Your task to perform on an android device: Show the shopping cart on costco. Add apple airpods pro to the cart on costco, then select checkout. Image 0: 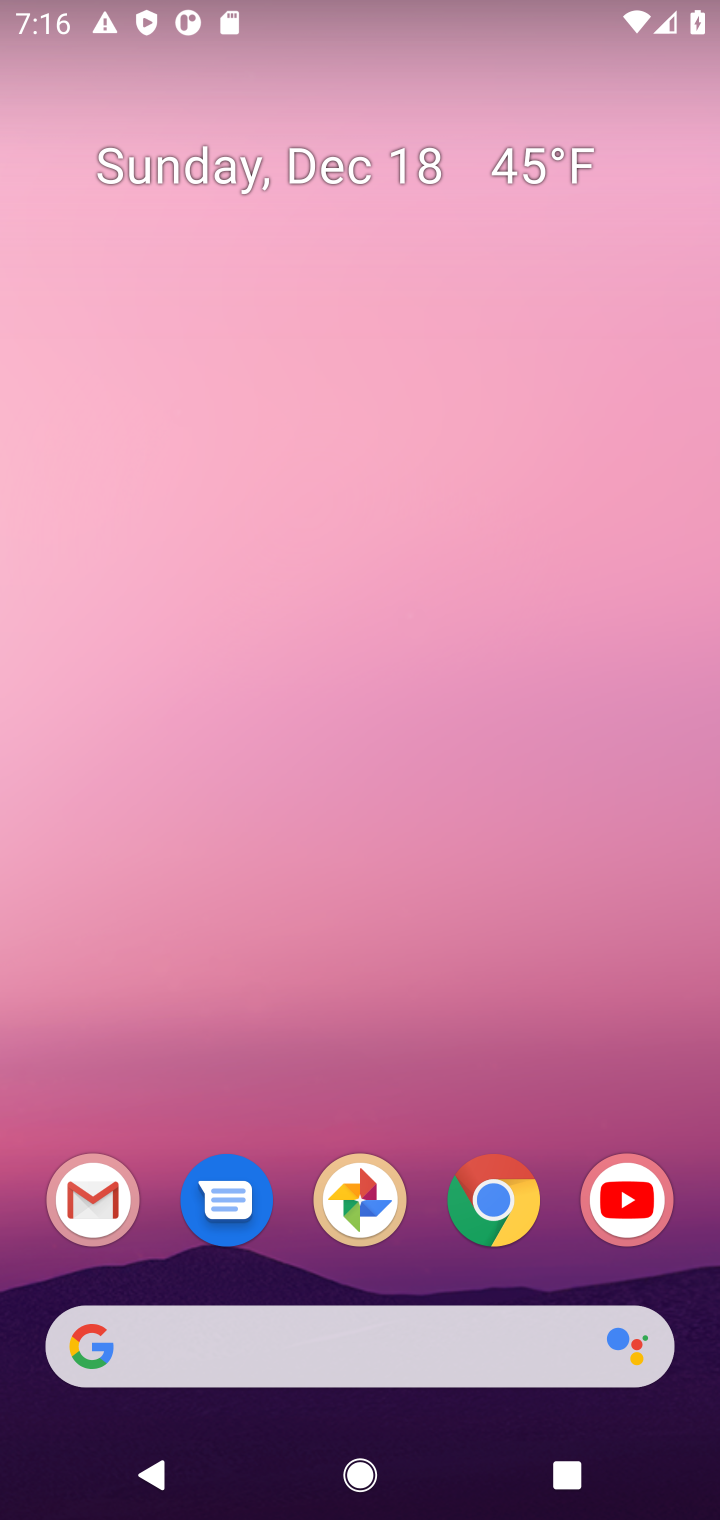
Step 0: click (495, 1183)
Your task to perform on an android device: Show the shopping cart on costco. Add apple airpods pro to the cart on costco, then select checkout. Image 1: 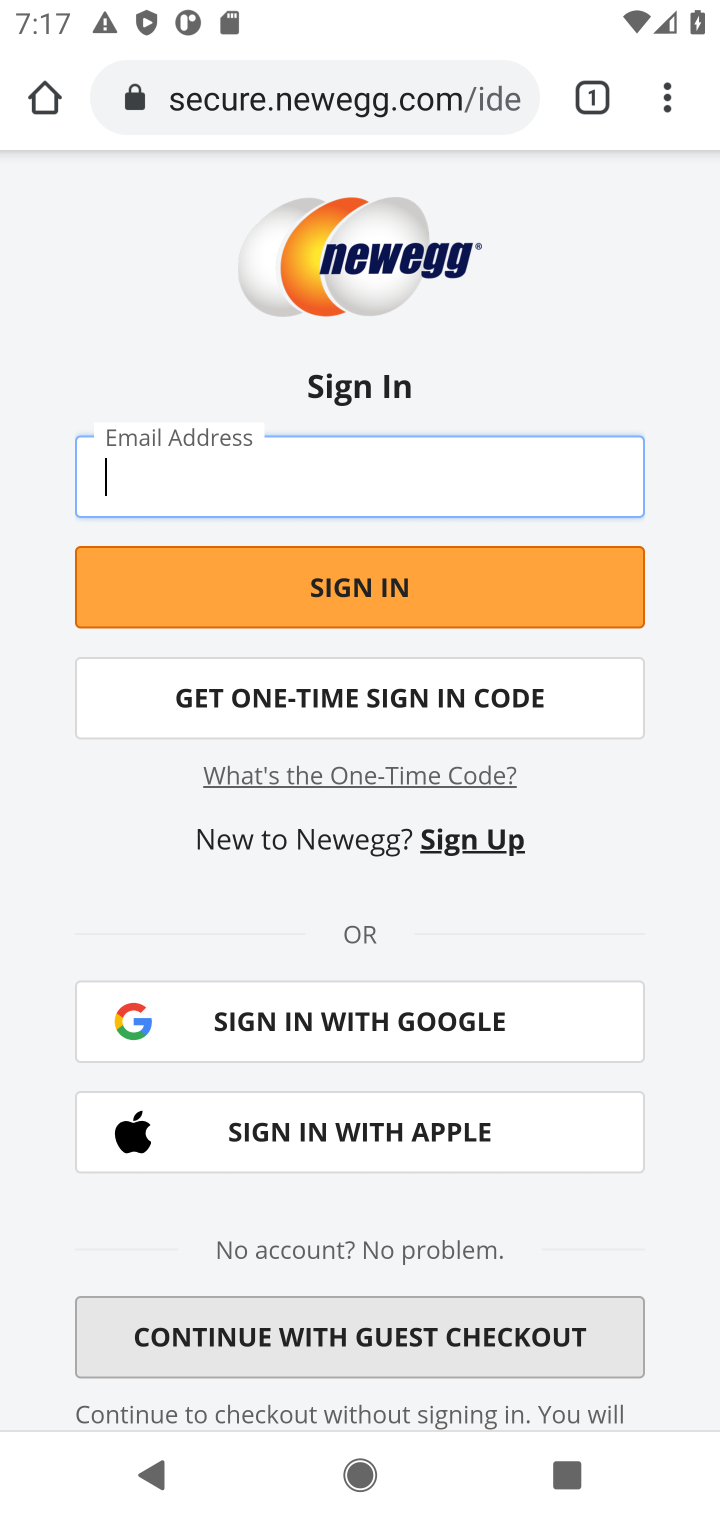
Step 1: click (310, 102)
Your task to perform on an android device: Show the shopping cart on costco. Add apple airpods pro to the cart on costco, then select checkout. Image 2: 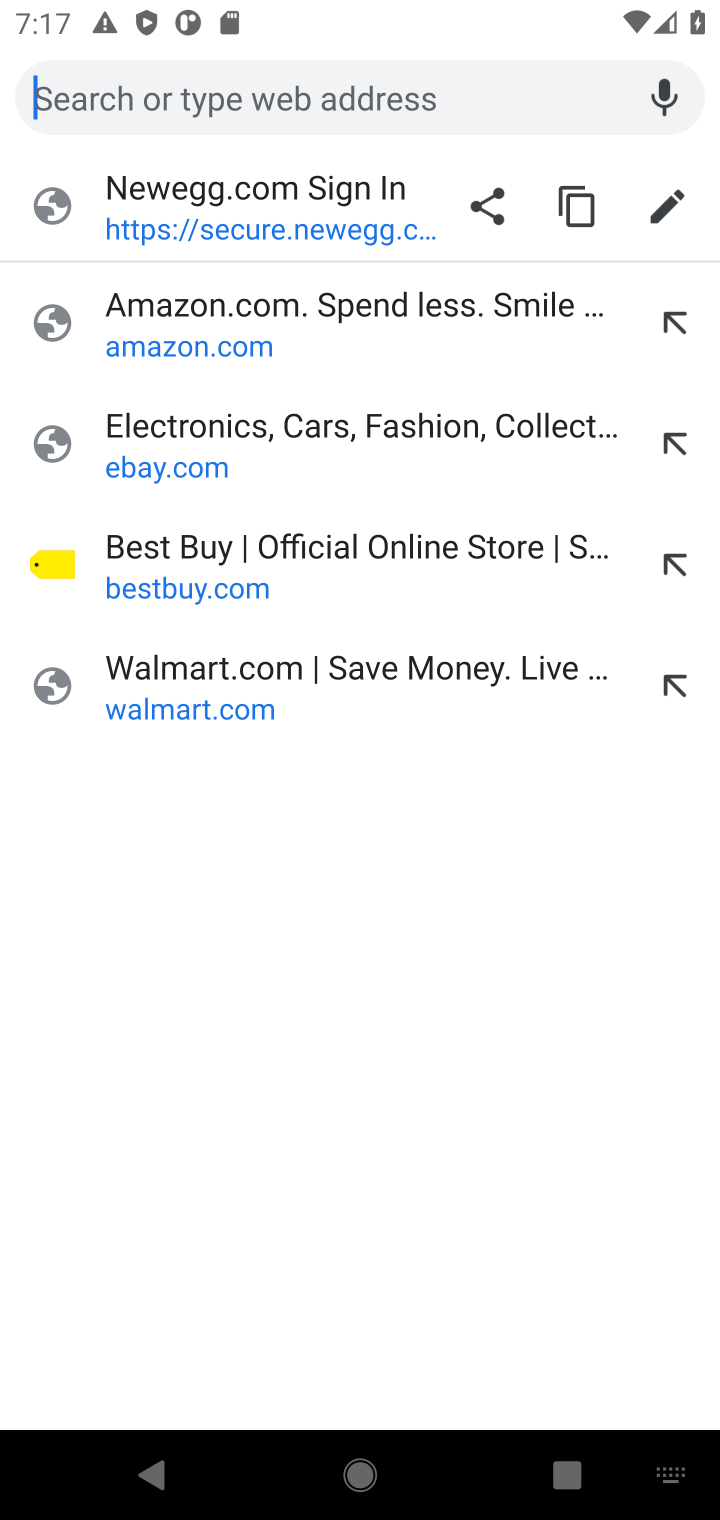
Step 2: type "costco.com"
Your task to perform on an android device: Show the shopping cart on costco. Add apple airpods pro to the cart on costco, then select checkout. Image 3: 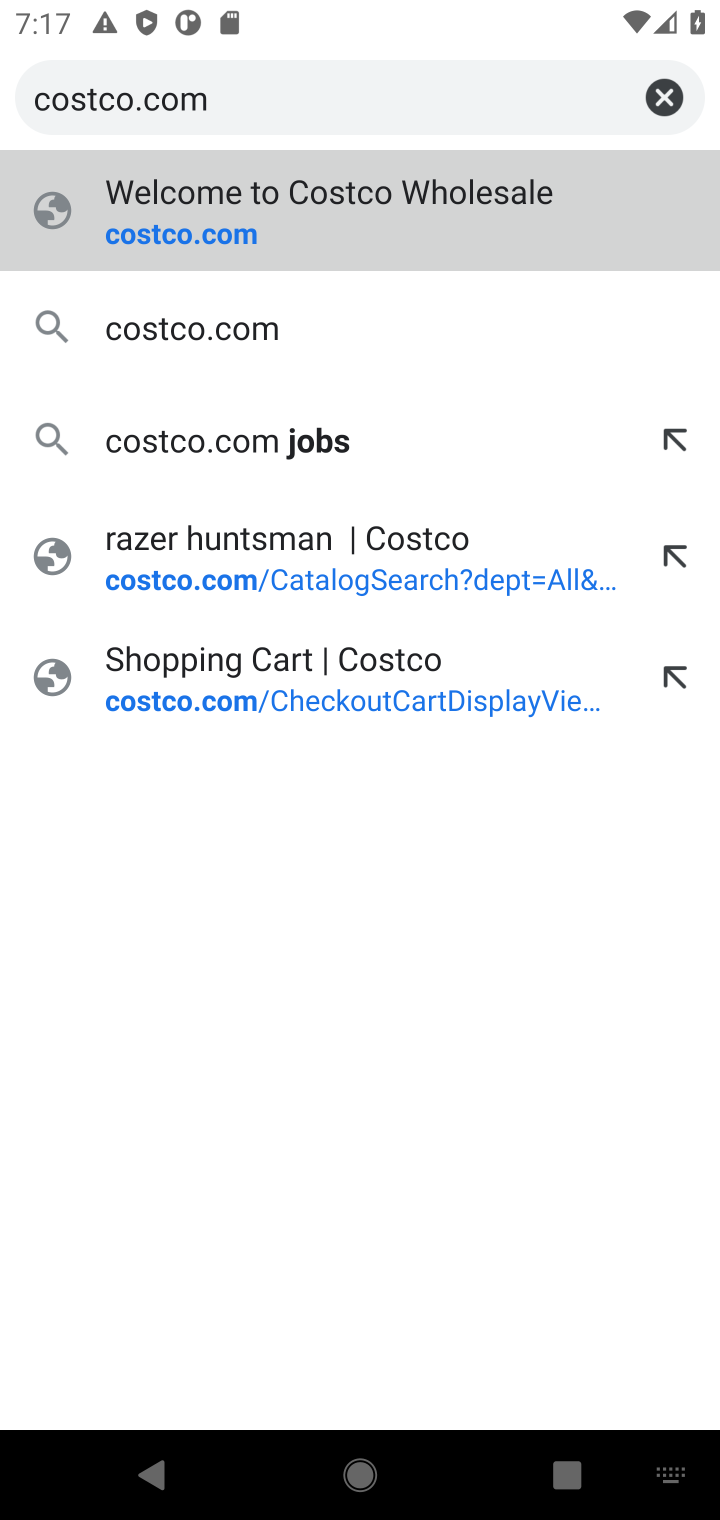
Step 3: click (136, 239)
Your task to perform on an android device: Show the shopping cart on costco. Add apple airpods pro to the cart on costco, then select checkout. Image 4: 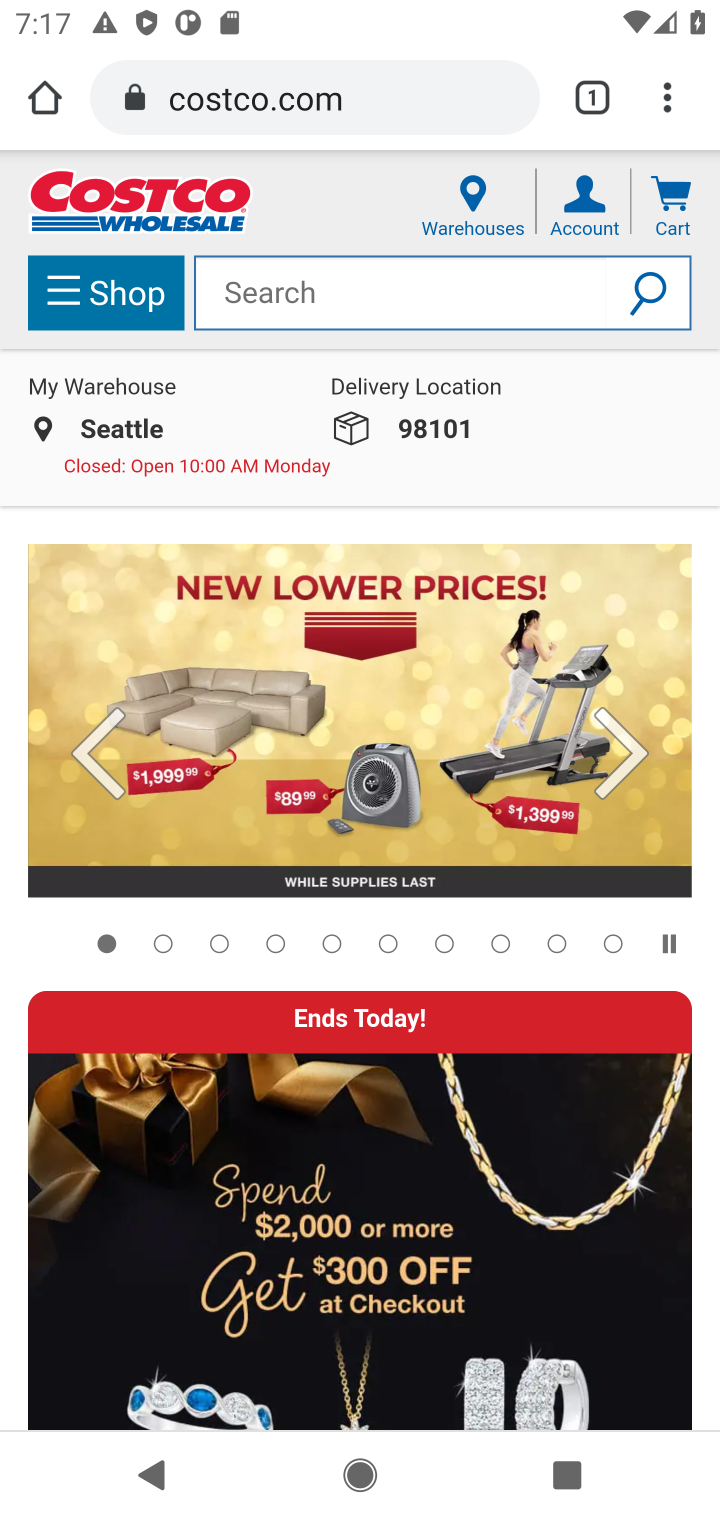
Step 4: click (682, 206)
Your task to perform on an android device: Show the shopping cart on costco. Add apple airpods pro to the cart on costco, then select checkout. Image 5: 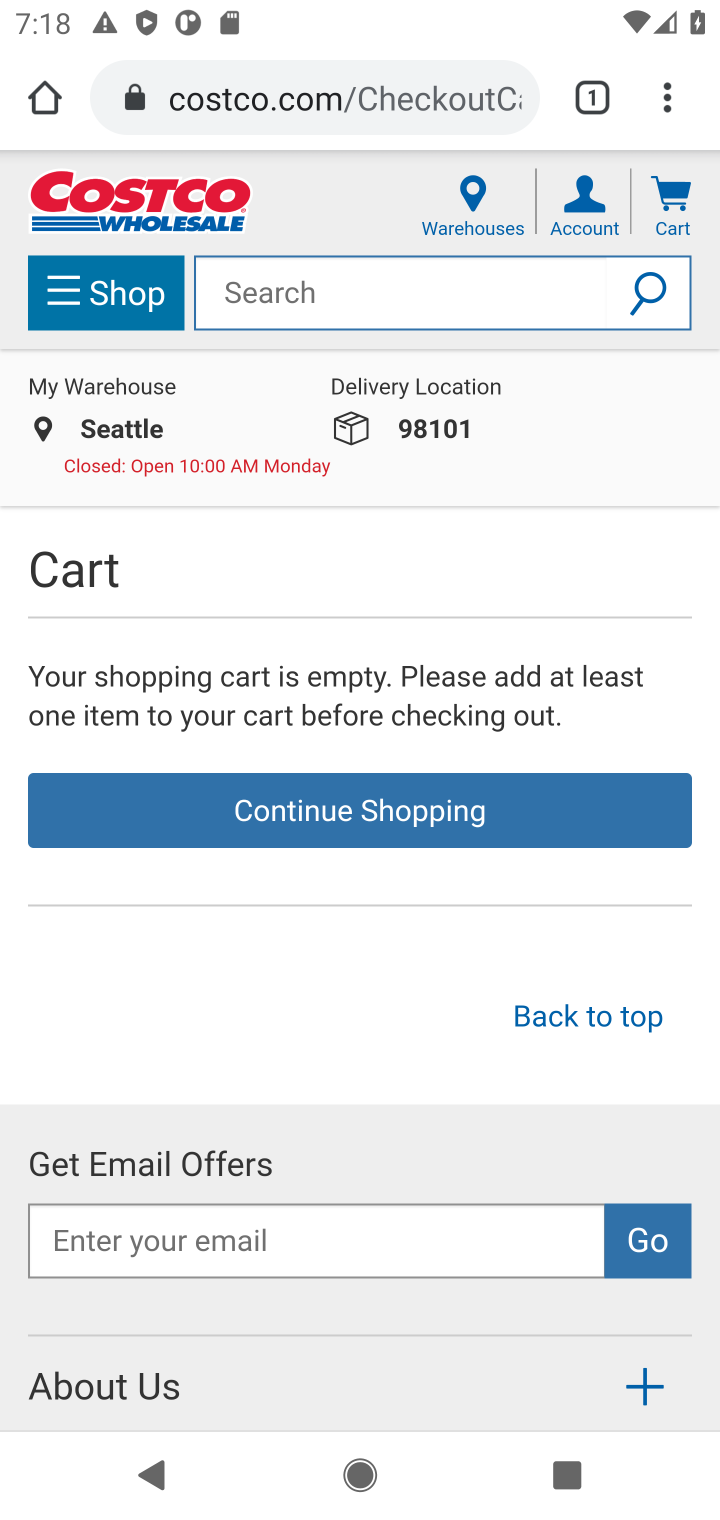
Step 5: click (276, 299)
Your task to perform on an android device: Show the shopping cart on costco. Add apple airpods pro to the cart on costco, then select checkout. Image 6: 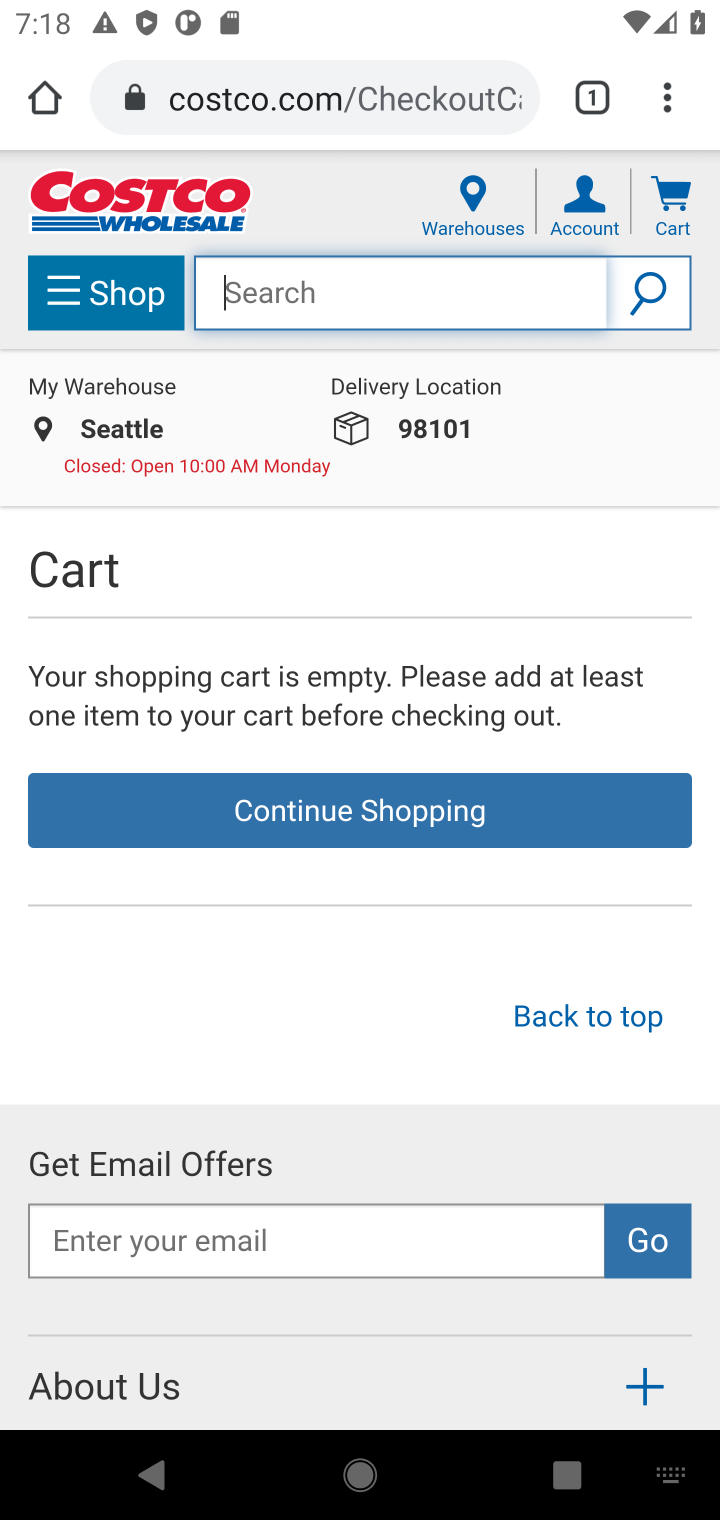
Step 6: type "apple airpods pro"
Your task to perform on an android device: Show the shopping cart on costco. Add apple airpods pro to the cart on costco, then select checkout. Image 7: 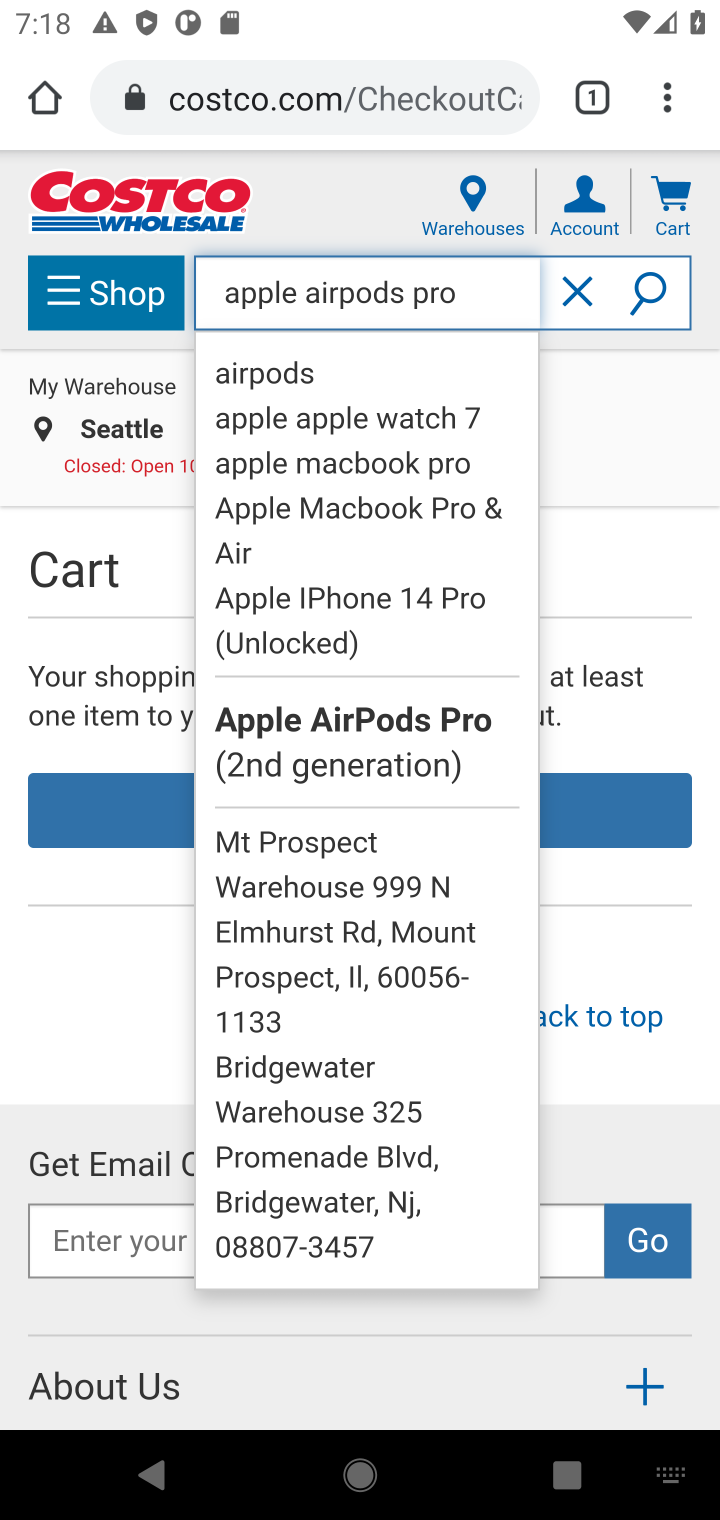
Step 7: click (652, 290)
Your task to perform on an android device: Show the shopping cart on costco. Add apple airpods pro to the cart on costco, then select checkout. Image 8: 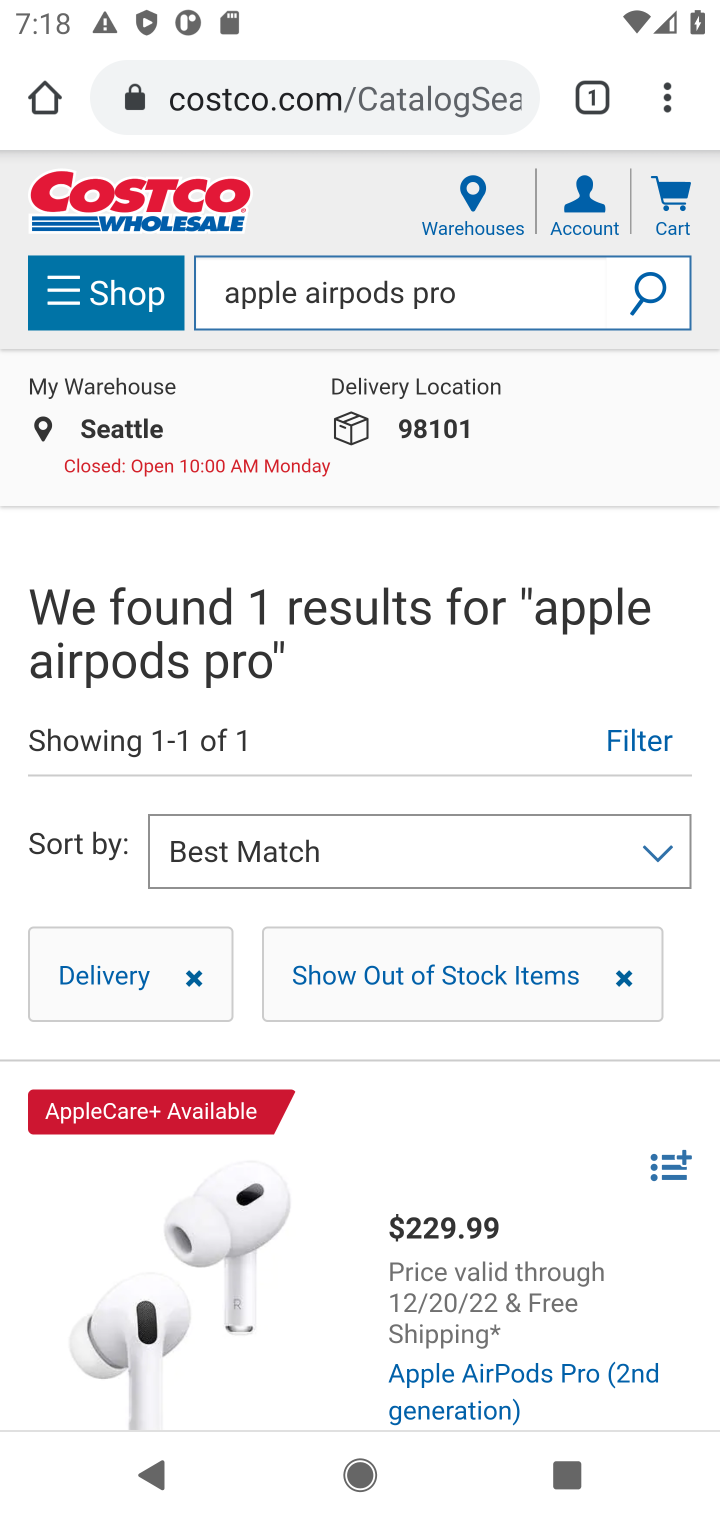
Step 8: drag from (374, 1069) to (345, 719)
Your task to perform on an android device: Show the shopping cart on costco. Add apple airpods pro to the cart on costco, then select checkout. Image 9: 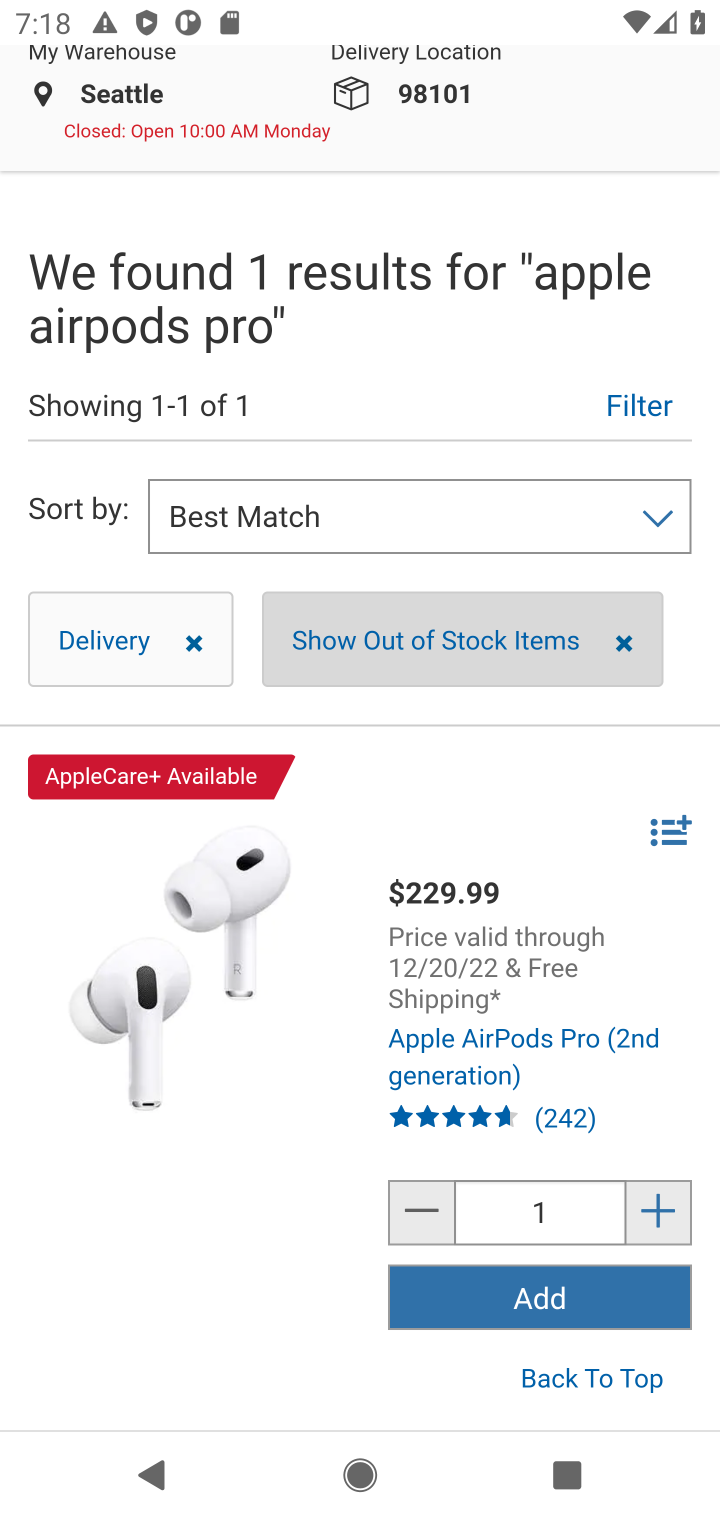
Step 9: click (561, 1308)
Your task to perform on an android device: Show the shopping cart on costco. Add apple airpods pro to the cart on costco, then select checkout. Image 10: 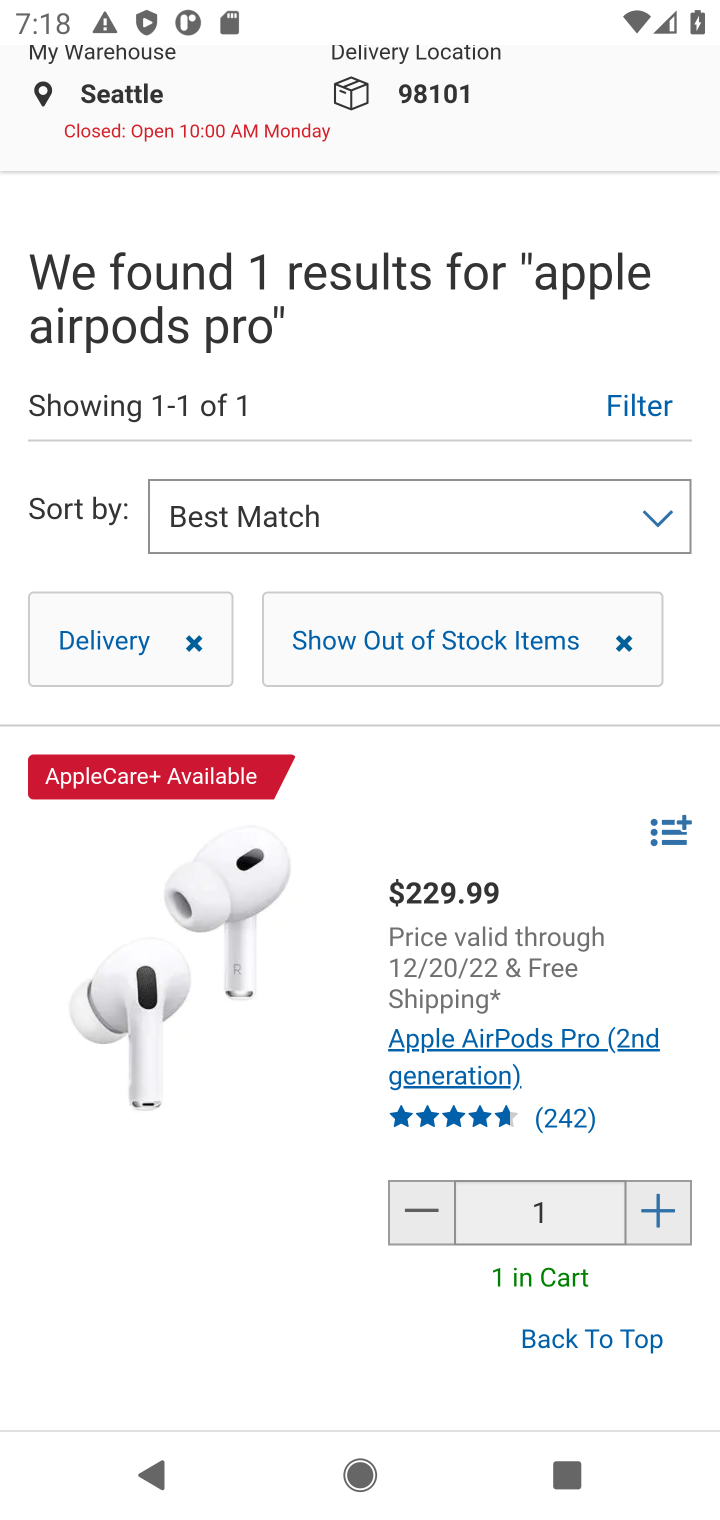
Step 10: drag from (380, 429) to (382, 966)
Your task to perform on an android device: Show the shopping cart on costco. Add apple airpods pro to the cart on costco, then select checkout. Image 11: 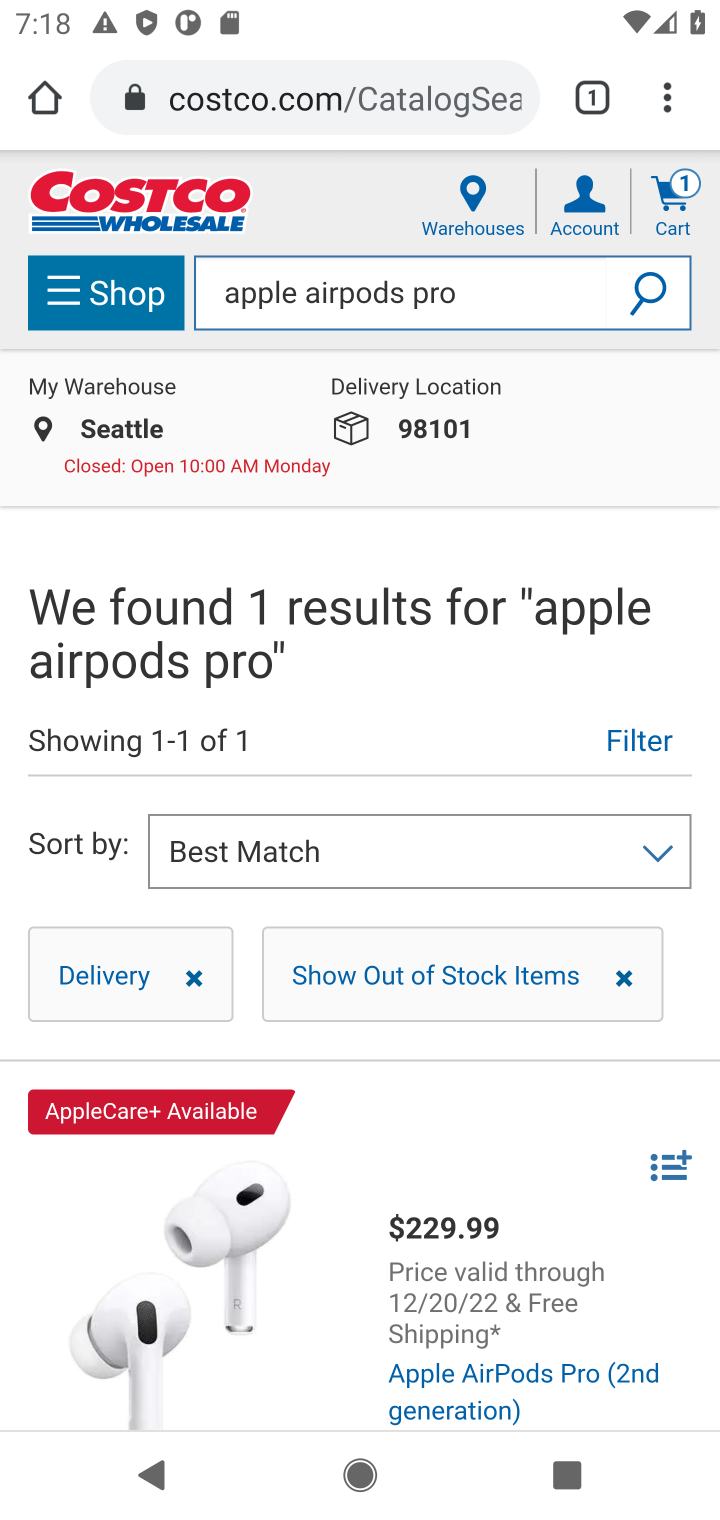
Step 11: click (669, 205)
Your task to perform on an android device: Show the shopping cart on costco. Add apple airpods pro to the cart on costco, then select checkout. Image 12: 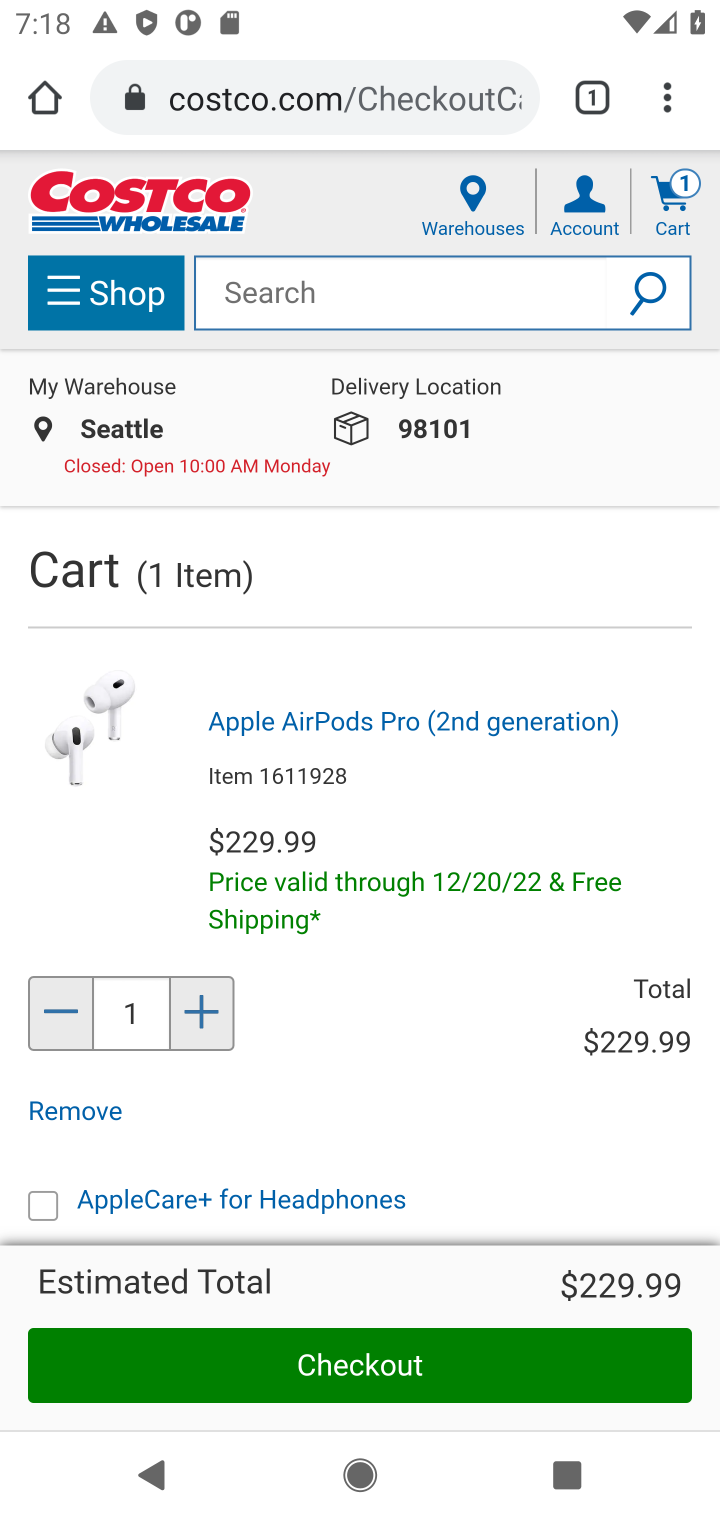
Step 12: click (391, 1371)
Your task to perform on an android device: Show the shopping cart on costco. Add apple airpods pro to the cart on costco, then select checkout. Image 13: 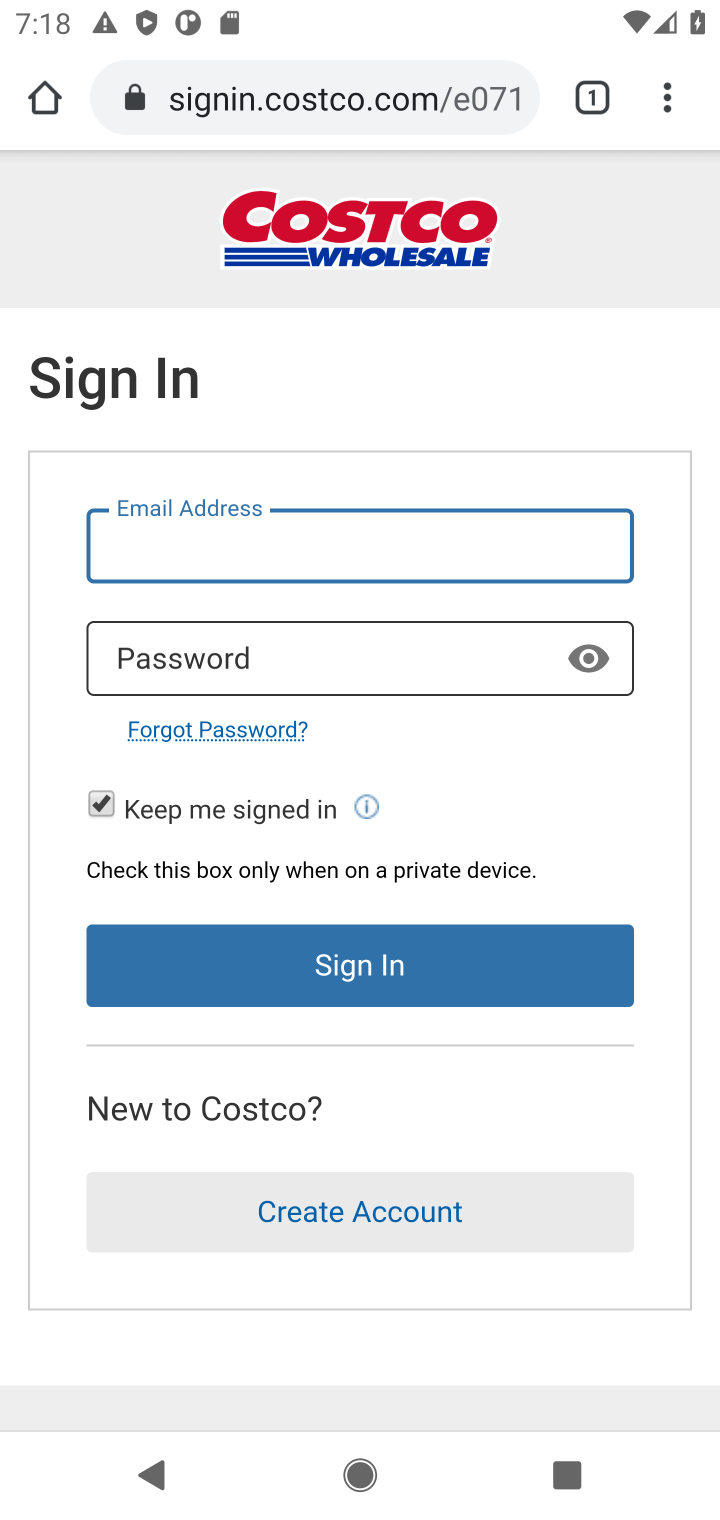
Step 13: task complete